Your task to perform on an android device: Open Google Chrome and open the bookmarks view Image 0: 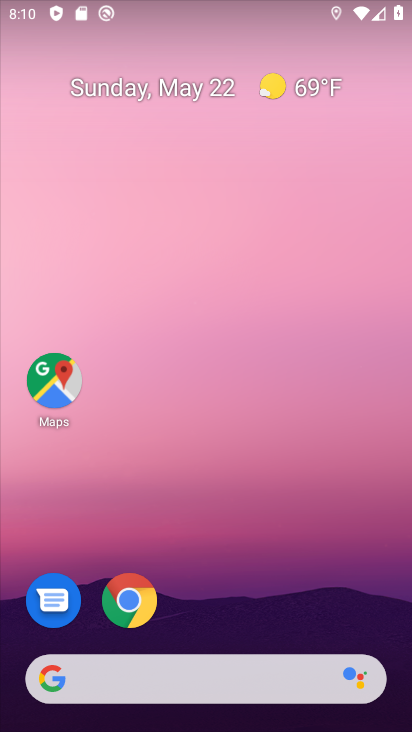
Step 0: click (128, 600)
Your task to perform on an android device: Open Google Chrome and open the bookmarks view Image 1: 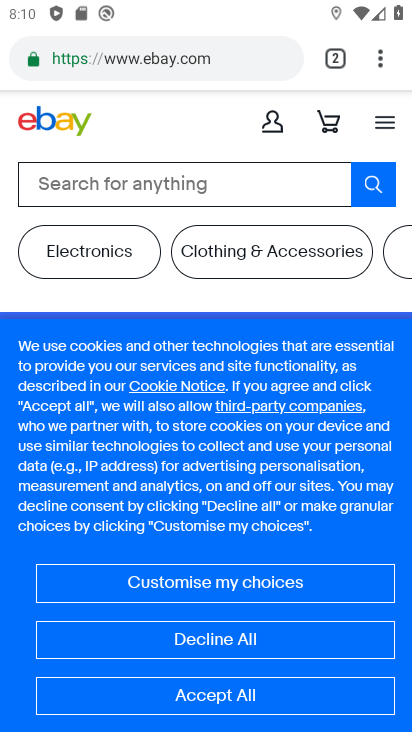
Step 1: click (374, 58)
Your task to perform on an android device: Open Google Chrome and open the bookmarks view Image 2: 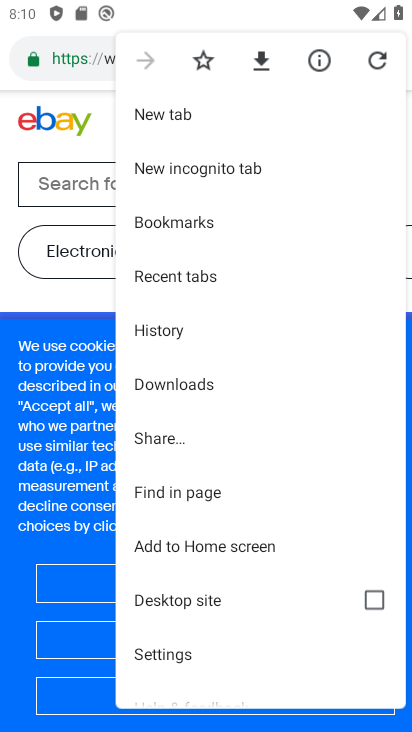
Step 2: click (191, 232)
Your task to perform on an android device: Open Google Chrome and open the bookmarks view Image 3: 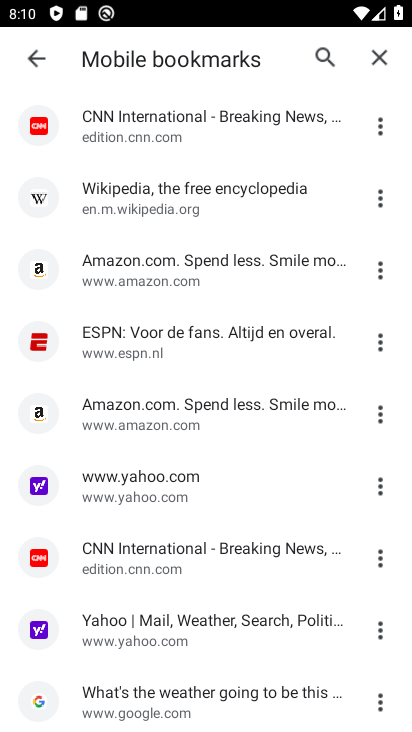
Step 3: click (156, 403)
Your task to perform on an android device: Open Google Chrome and open the bookmarks view Image 4: 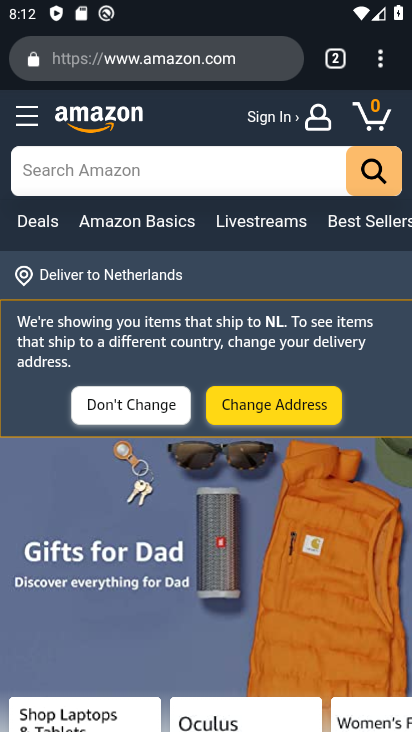
Step 4: task complete